Your task to perform on an android device: Open network settings Image 0: 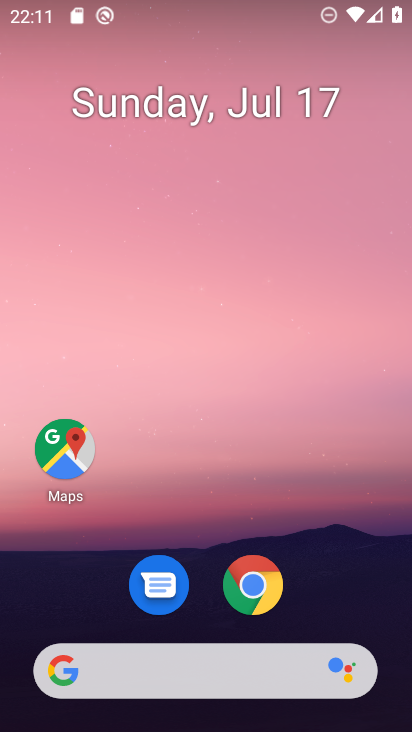
Step 0: press home button
Your task to perform on an android device: Open network settings Image 1: 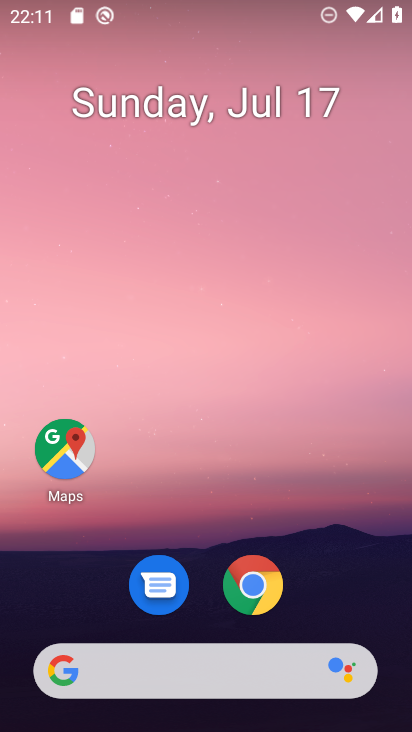
Step 1: drag from (191, 678) to (271, 205)
Your task to perform on an android device: Open network settings Image 2: 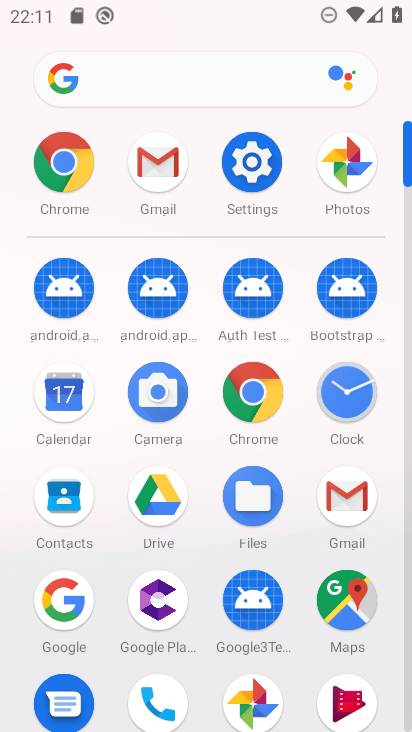
Step 2: click (246, 170)
Your task to perform on an android device: Open network settings Image 3: 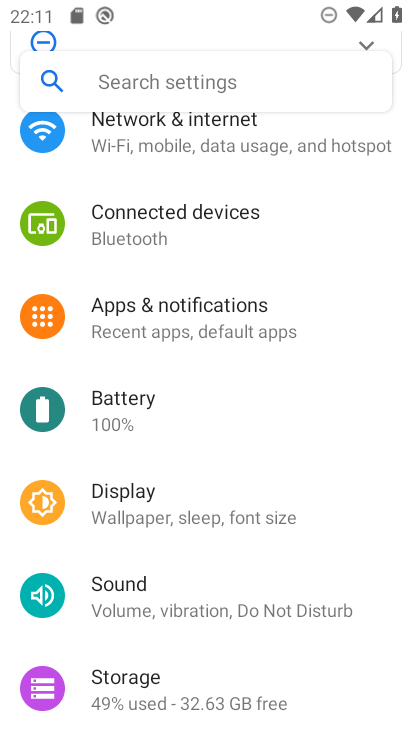
Step 3: click (190, 133)
Your task to perform on an android device: Open network settings Image 4: 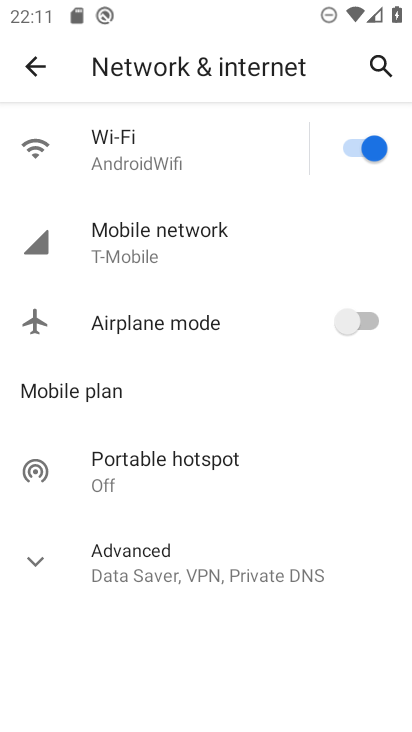
Step 4: click (186, 234)
Your task to perform on an android device: Open network settings Image 5: 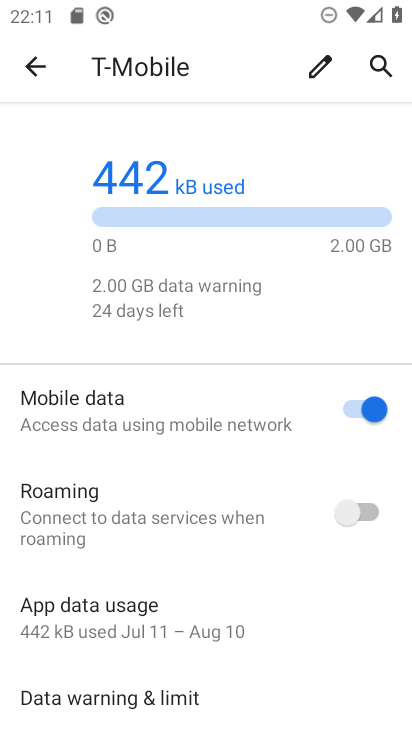
Step 5: task complete